Your task to perform on an android device: change the upload size in google photos Image 0: 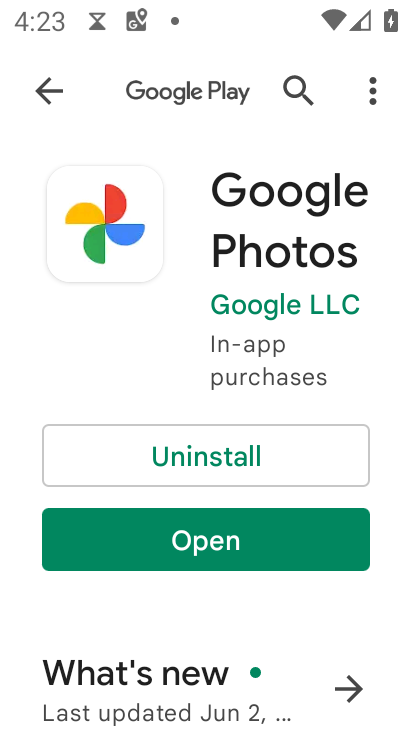
Step 0: press home button
Your task to perform on an android device: change the upload size in google photos Image 1: 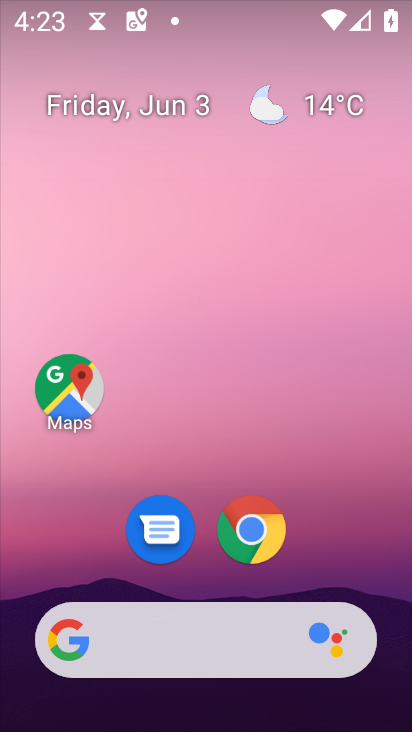
Step 1: drag from (367, 212) to (379, 83)
Your task to perform on an android device: change the upload size in google photos Image 2: 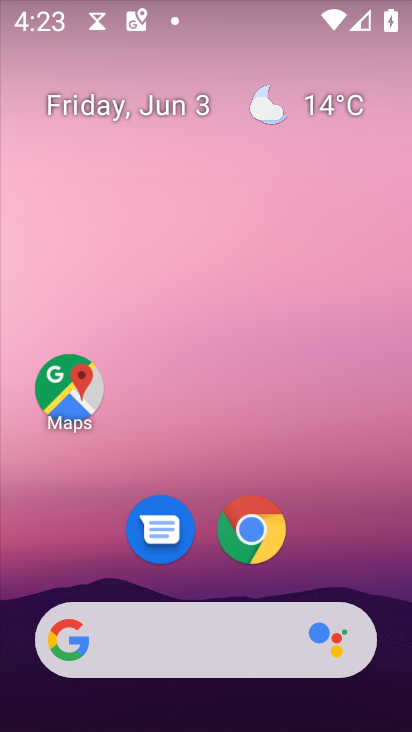
Step 2: drag from (298, 485) to (322, 16)
Your task to perform on an android device: change the upload size in google photos Image 3: 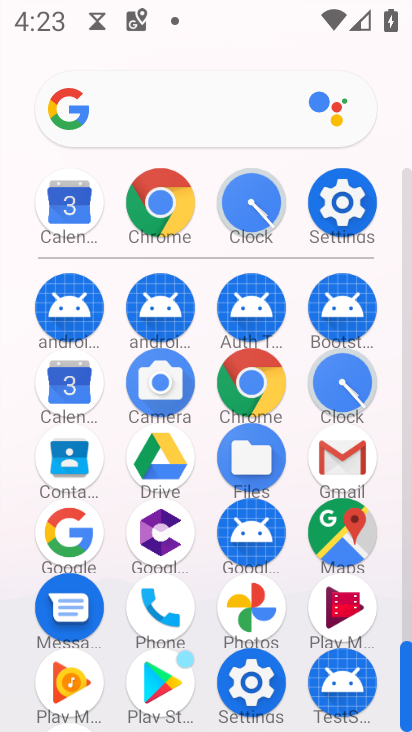
Step 3: click (263, 617)
Your task to perform on an android device: change the upload size in google photos Image 4: 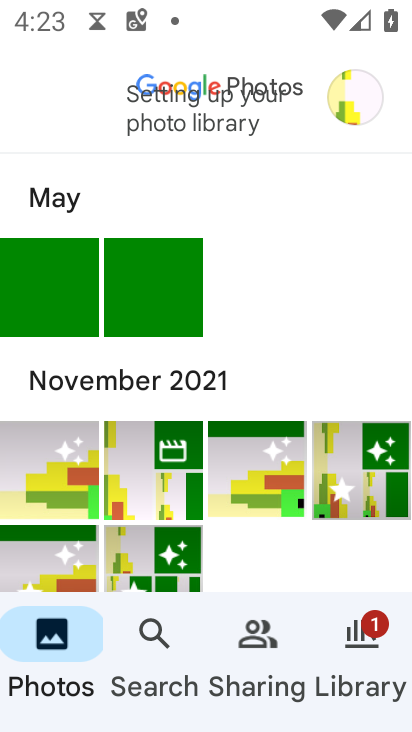
Step 4: click (363, 123)
Your task to perform on an android device: change the upload size in google photos Image 5: 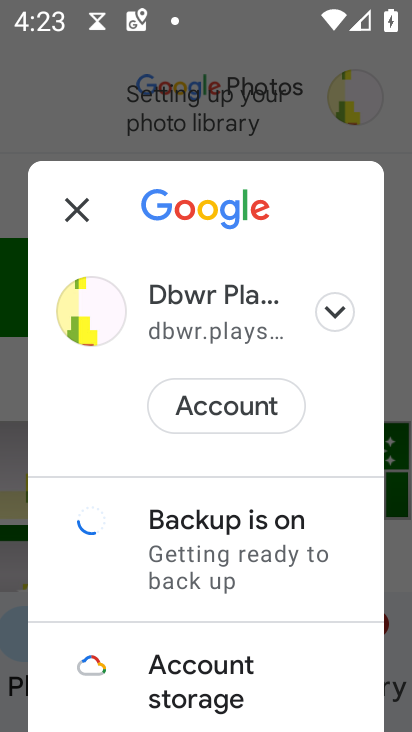
Step 5: drag from (230, 612) to (234, 229)
Your task to perform on an android device: change the upload size in google photos Image 6: 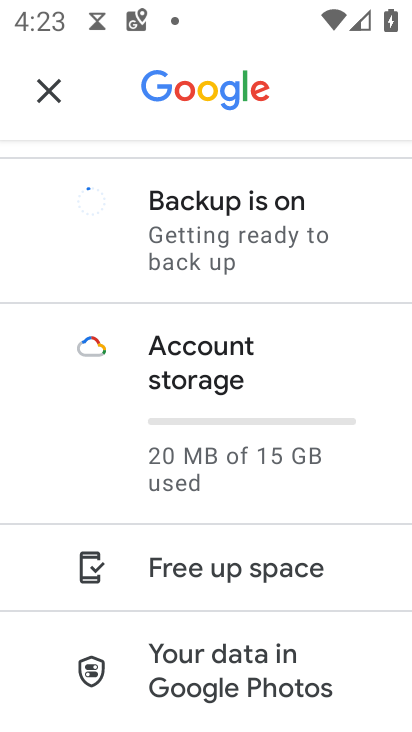
Step 6: drag from (192, 619) to (219, 254)
Your task to perform on an android device: change the upload size in google photos Image 7: 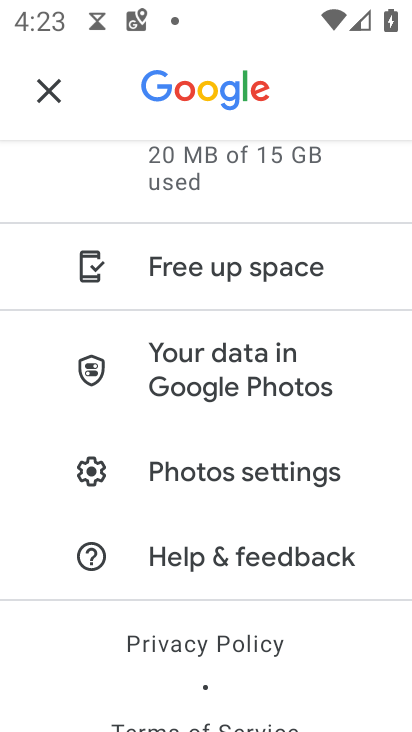
Step 7: click (219, 474)
Your task to perform on an android device: change the upload size in google photos Image 8: 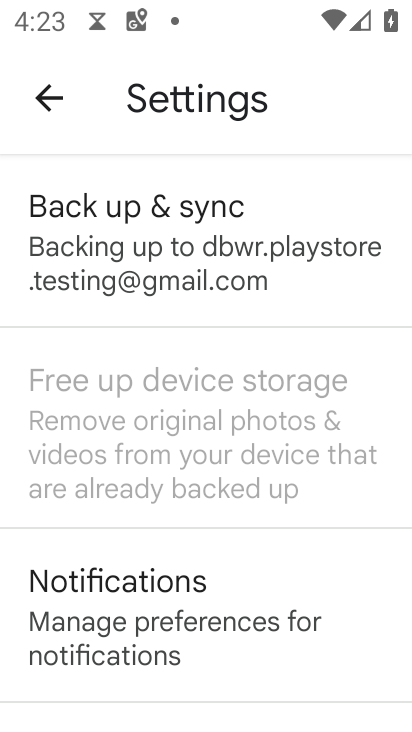
Step 8: click (91, 214)
Your task to perform on an android device: change the upload size in google photos Image 9: 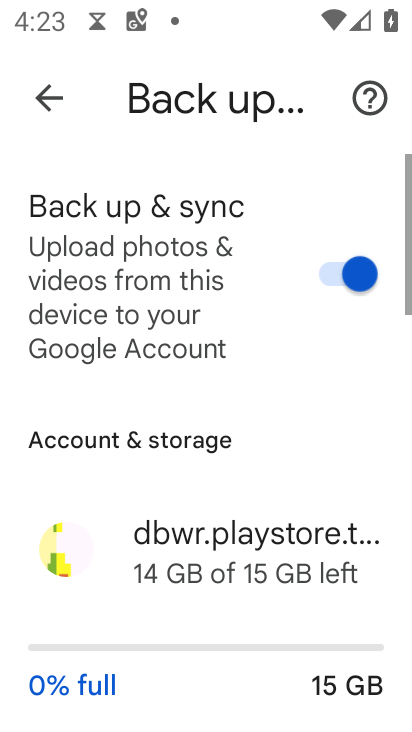
Step 9: drag from (196, 592) to (241, 162)
Your task to perform on an android device: change the upload size in google photos Image 10: 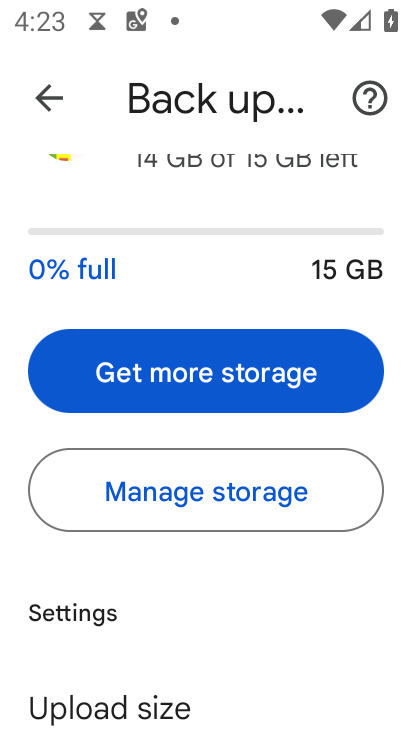
Step 10: drag from (225, 546) to (302, 177)
Your task to perform on an android device: change the upload size in google photos Image 11: 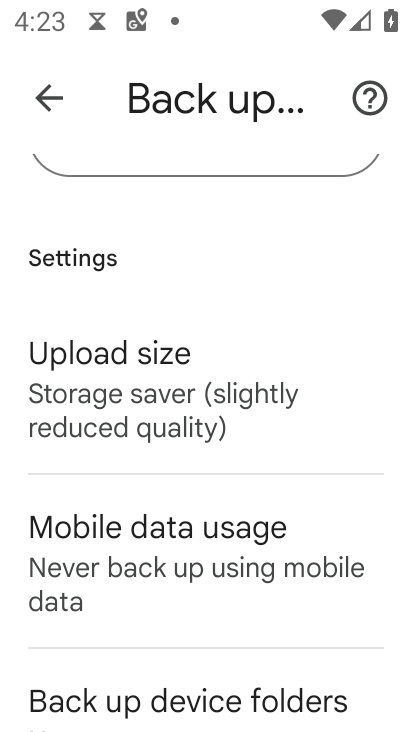
Step 11: click (188, 408)
Your task to perform on an android device: change the upload size in google photos Image 12: 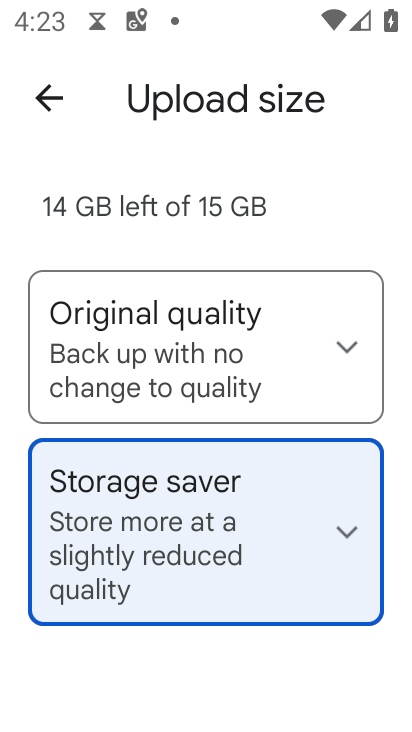
Step 12: click (177, 357)
Your task to perform on an android device: change the upload size in google photos Image 13: 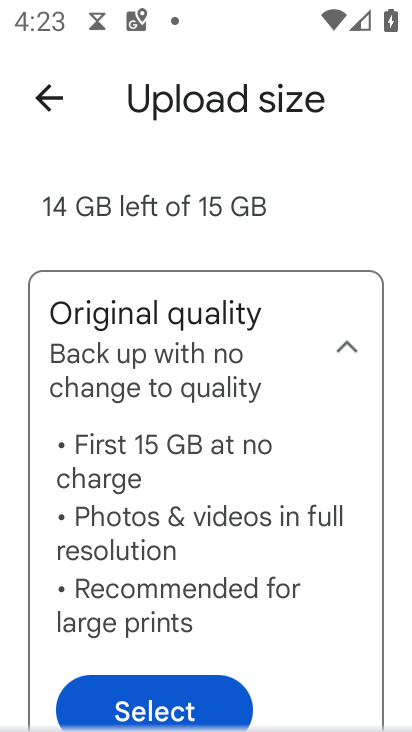
Step 13: click (184, 689)
Your task to perform on an android device: change the upload size in google photos Image 14: 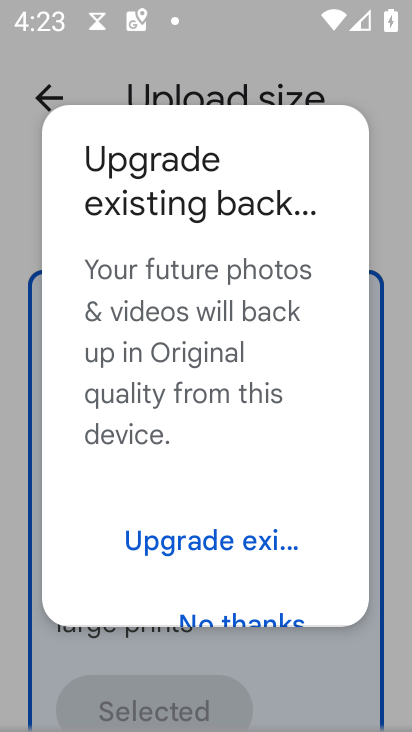
Step 14: task complete